Your task to perform on an android device: Open sound settings Image 0: 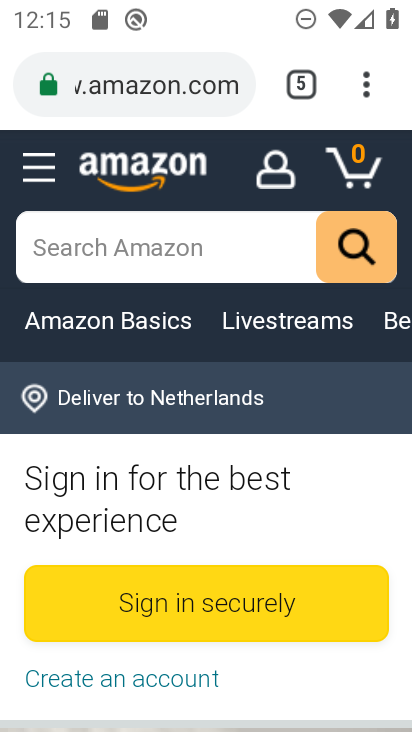
Step 0: press home button
Your task to perform on an android device: Open sound settings Image 1: 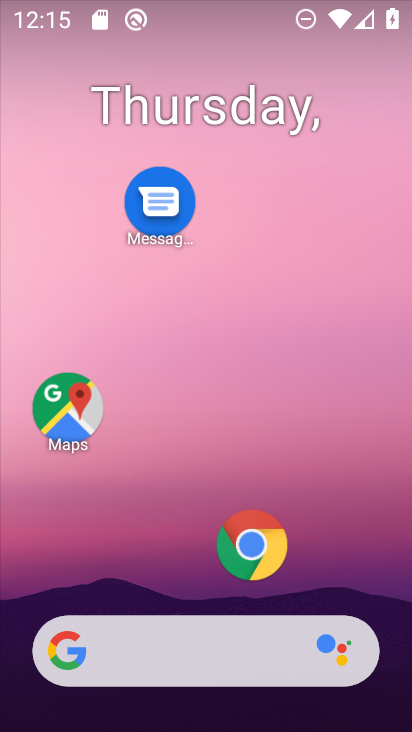
Step 1: drag from (168, 579) to (180, 130)
Your task to perform on an android device: Open sound settings Image 2: 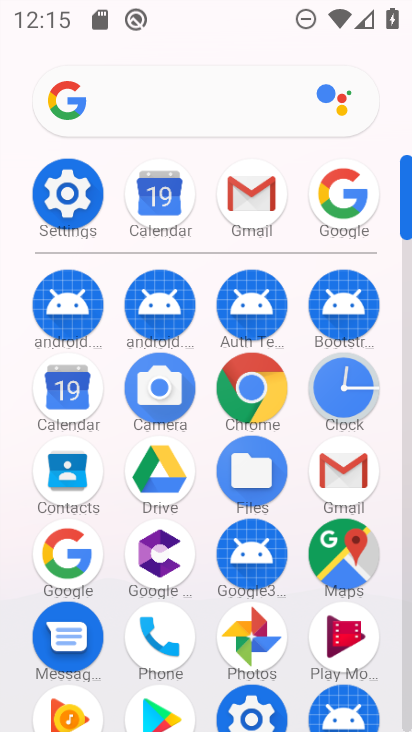
Step 2: click (69, 188)
Your task to perform on an android device: Open sound settings Image 3: 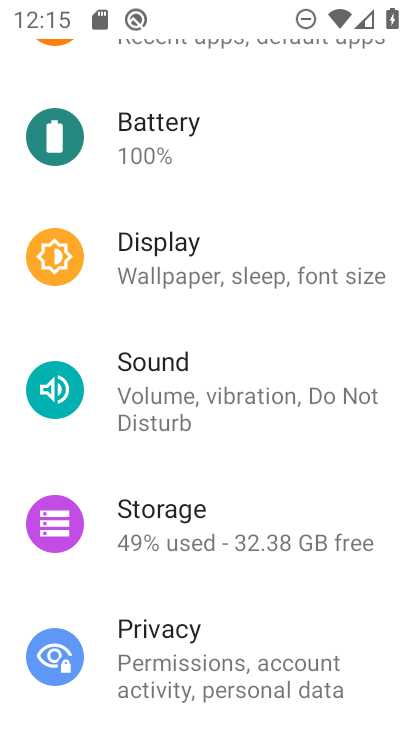
Step 3: click (177, 409)
Your task to perform on an android device: Open sound settings Image 4: 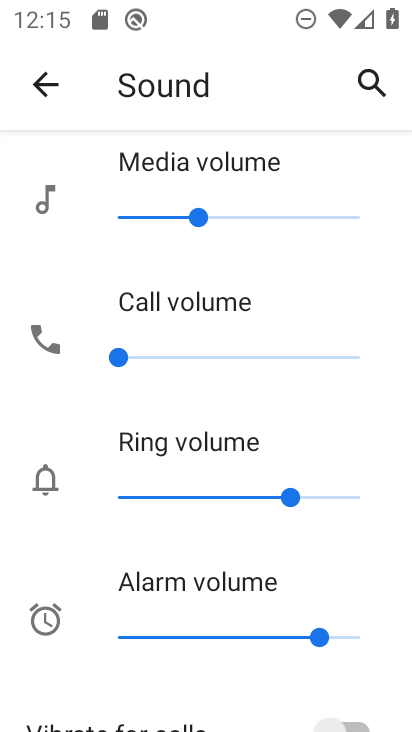
Step 4: task complete